Your task to perform on an android device: Open Chrome and go to the settings page Image 0: 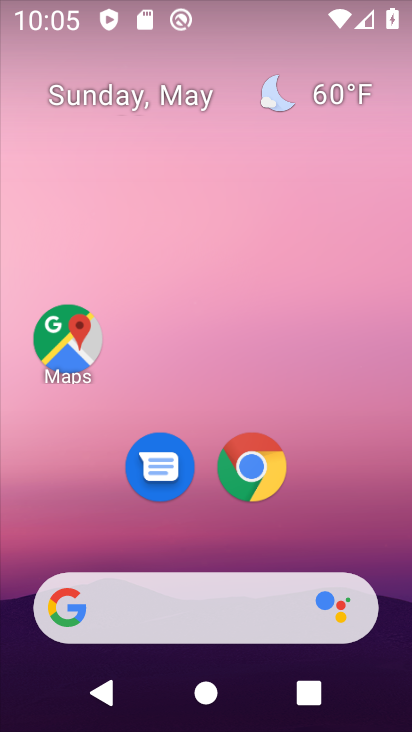
Step 0: click (260, 486)
Your task to perform on an android device: Open Chrome and go to the settings page Image 1: 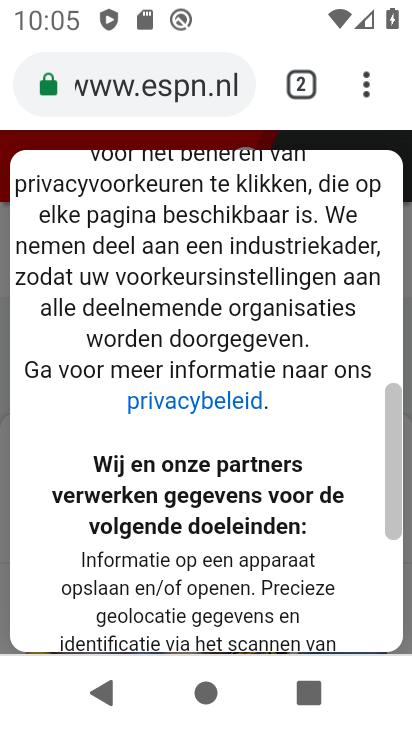
Step 1: task complete